Your task to perform on an android device: set an alarm Image 0: 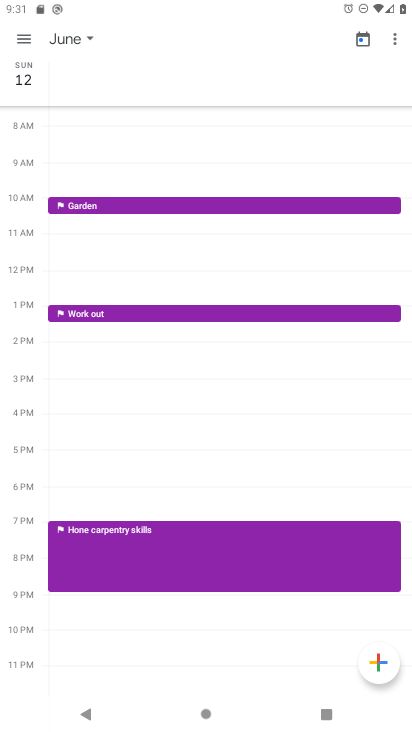
Step 0: press home button
Your task to perform on an android device: set an alarm Image 1: 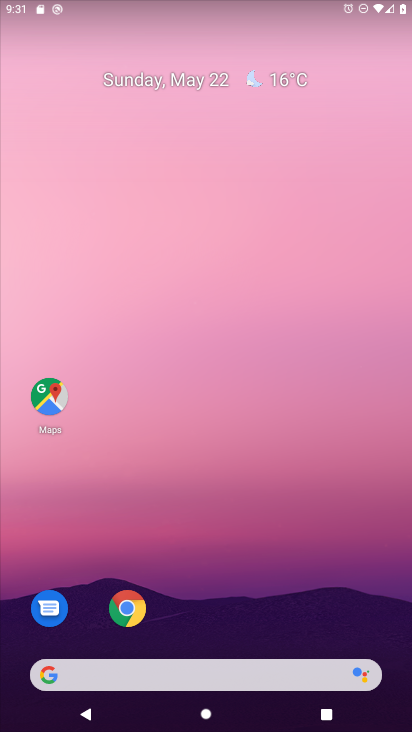
Step 1: drag from (132, 728) to (58, 124)
Your task to perform on an android device: set an alarm Image 2: 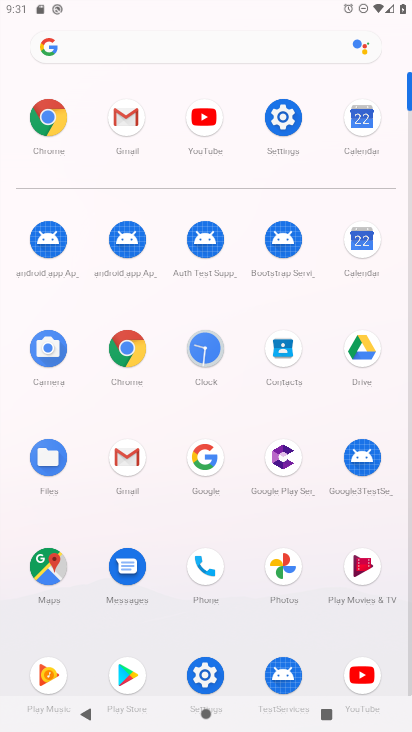
Step 2: click (202, 356)
Your task to perform on an android device: set an alarm Image 3: 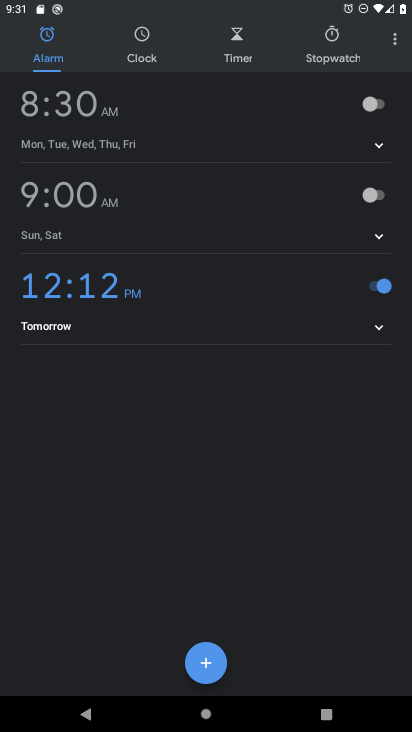
Step 3: click (210, 662)
Your task to perform on an android device: set an alarm Image 4: 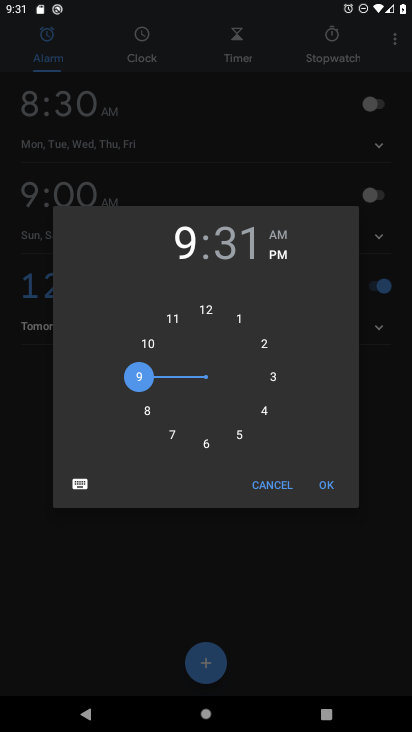
Step 4: click (207, 441)
Your task to perform on an android device: set an alarm Image 5: 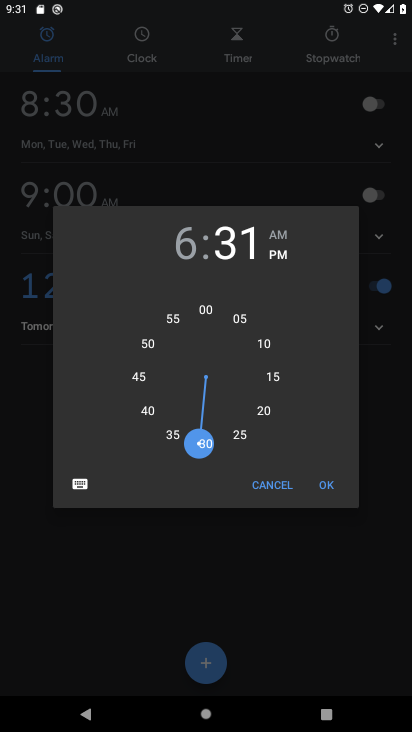
Step 5: click (328, 485)
Your task to perform on an android device: set an alarm Image 6: 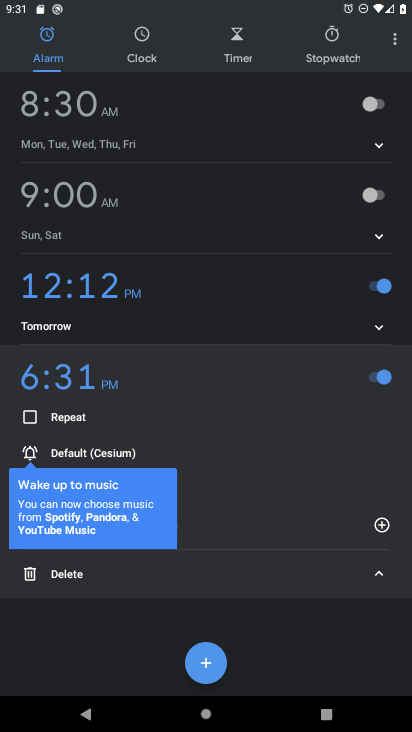
Step 6: task complete